Your task to perform on an android device: Show me productivity apps on the Play Store Image 0: 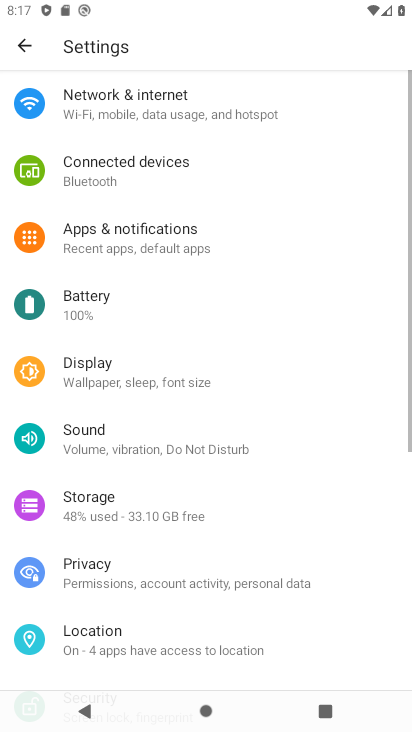
Step 0: press home button
Your task to perform on an android device: Show me productivity apps on the Play Store Image 1: 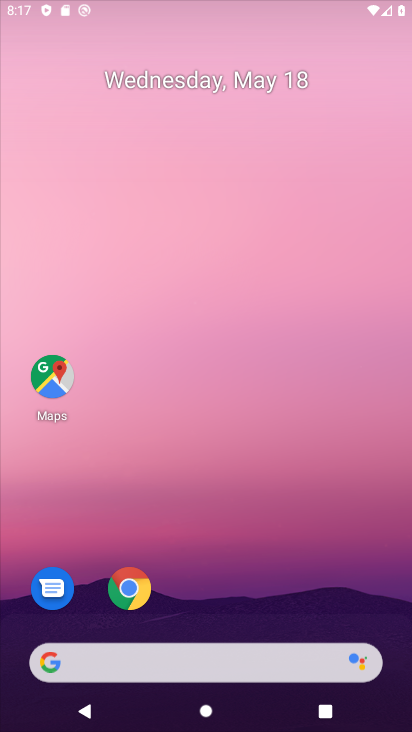
Step 1: drag from (355, 520) to (327, 145)
Your task to perform on an android device: Show me productivity apps on the Play Store Image 2: 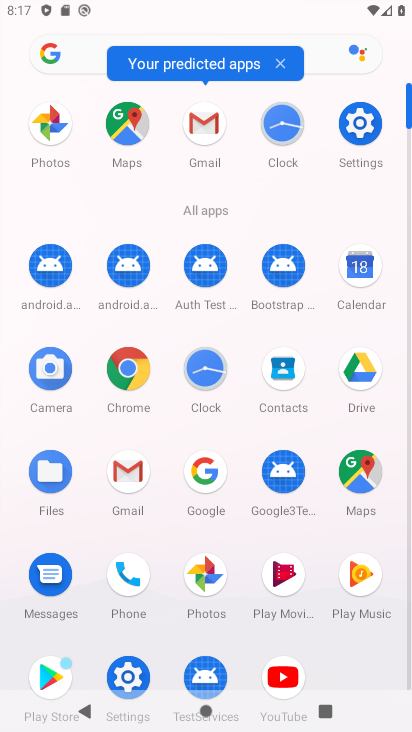
Step 2: click (41, 678)
Your task to perform on an android device: Show me productivity apps on the Play Store Image 3: 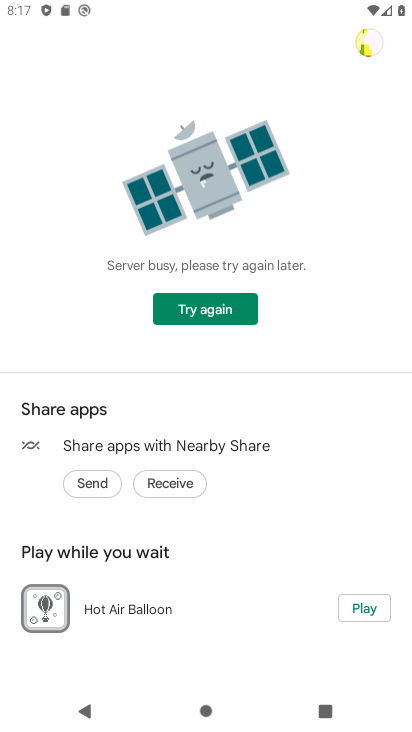
Step 3: task complete